Your task to perform on an android device: turn on notifications settings in the gmail app Image 0: 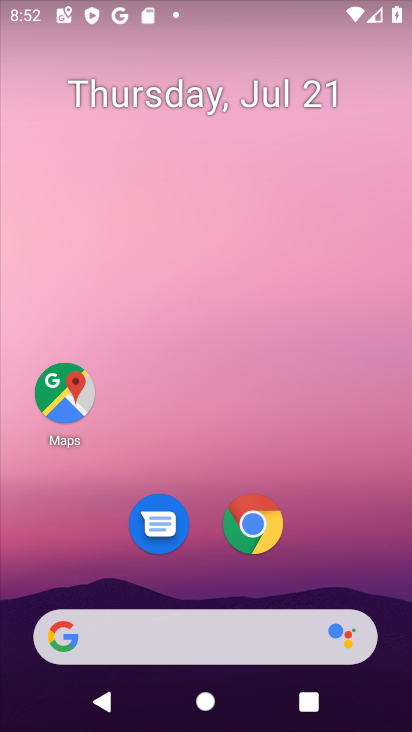
Step 0: press home button
Your task to perform on an android device: turn on notifications settings in the gmail app Image 1: 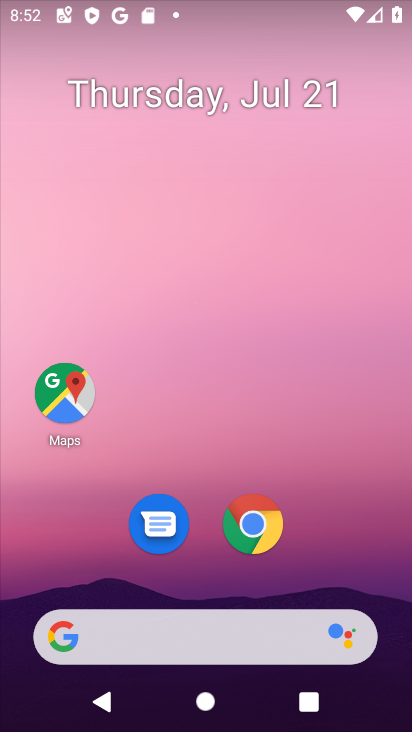
Step 1: drag from (224, 634) to (334, 282)
Your task to perform on an android device: turn on notifications settings in the gmail app Image 2: 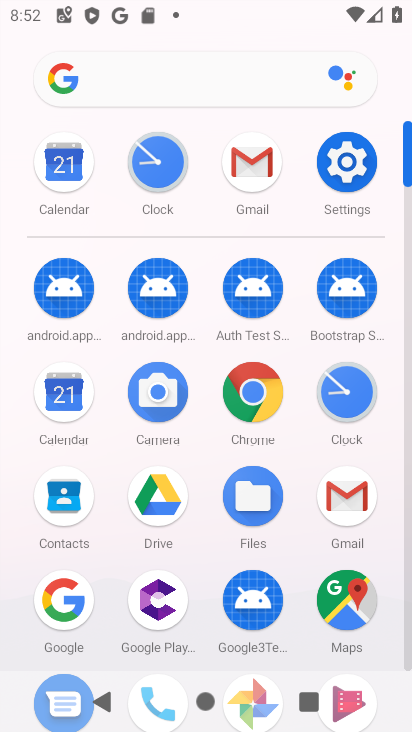
Step 2: click (265, 169)
Your task to perform on an android device: turn on notifications settings in the gmail app Image 3: 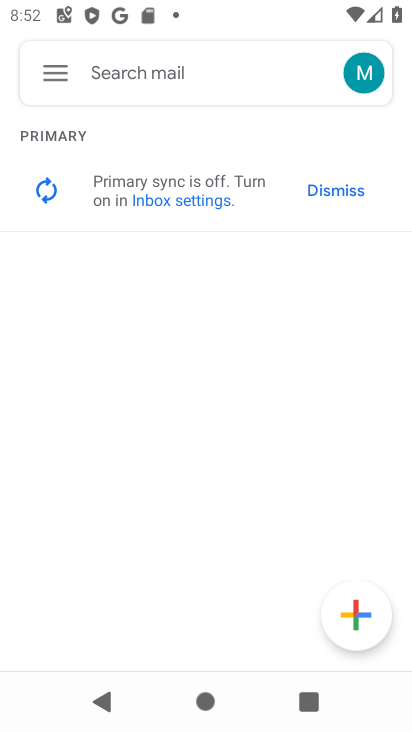
Step 3: click (65, 74)
Your task to perform on an android device: turn on notifications settings in the gmail app Image 4: 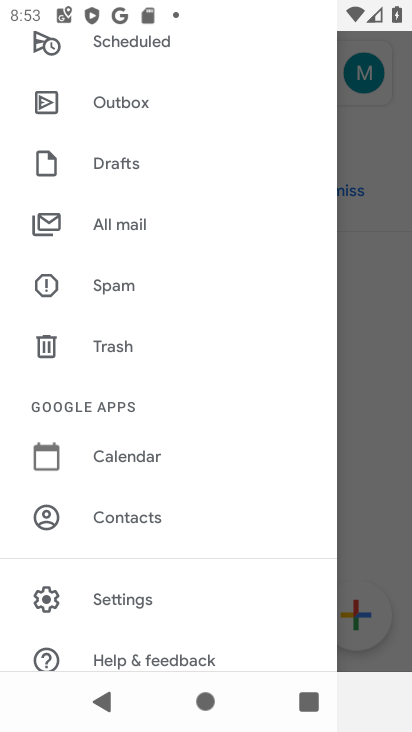
Step 4: click (143, 593)
Your task to perform on an android device: turn on notifications settings in the gmail app Image 5: 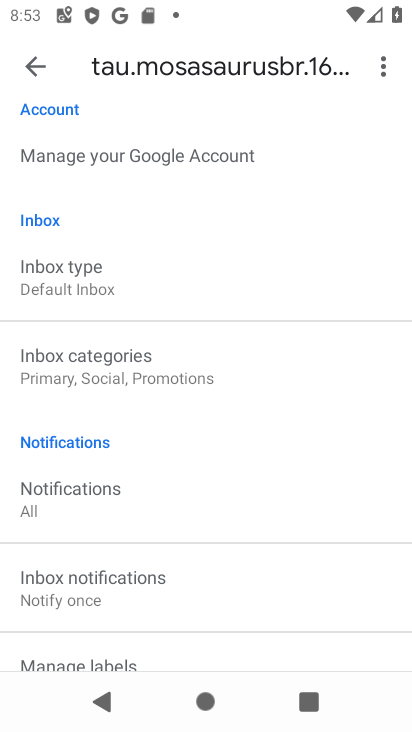
Step 5: click (92, 500)
Your task to perform on an android device: turn on notifications settings in the gmail app Image 6: 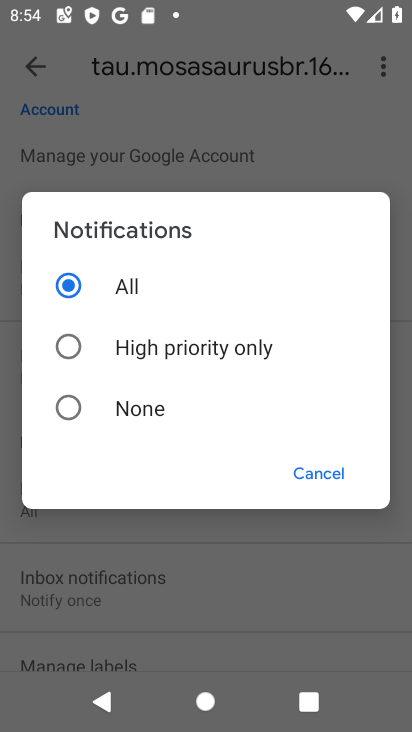
Step 6: task complete